Your task to perform on an android device: Open calendar and show me the first week of next month Image 0: 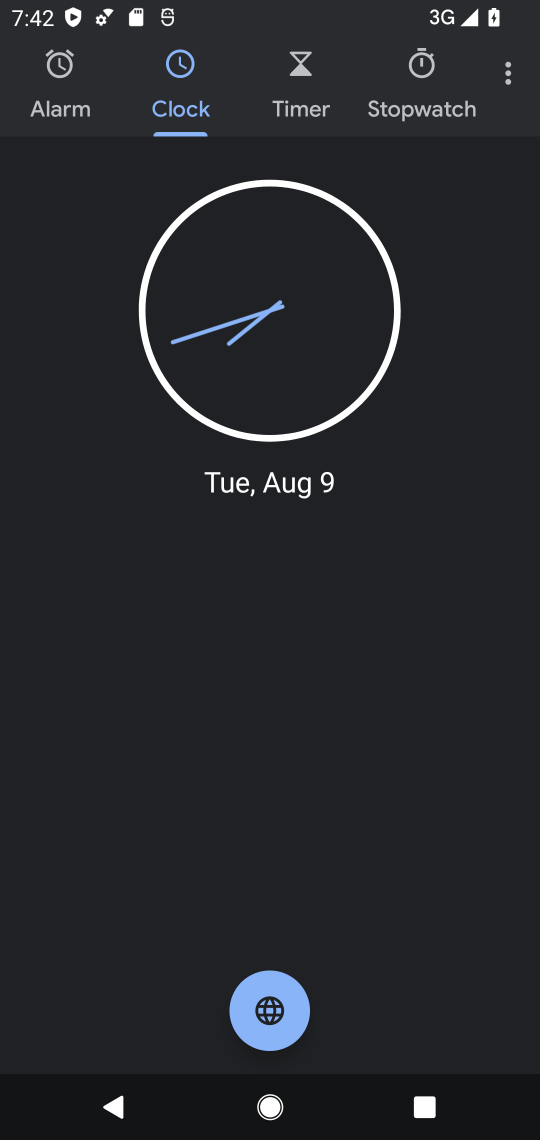
Step 0: press home button
Your task to perform on an android device: Open calendar and show me the first week of next month Image 1: 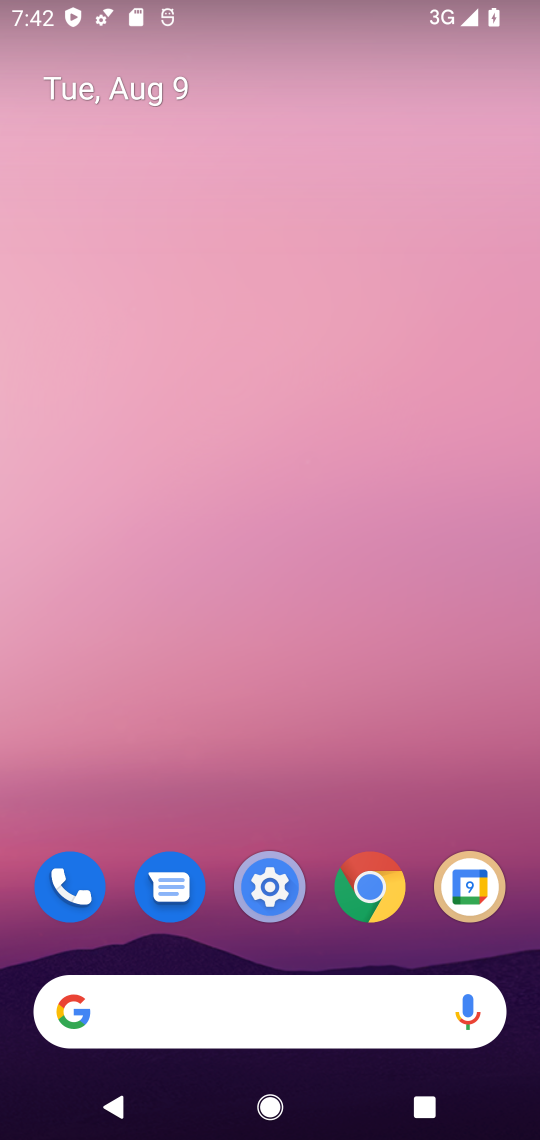
Step 1: click (476, 884)
Your task to perform on an android device: Open calendar and show me the first week of next month Image 2: 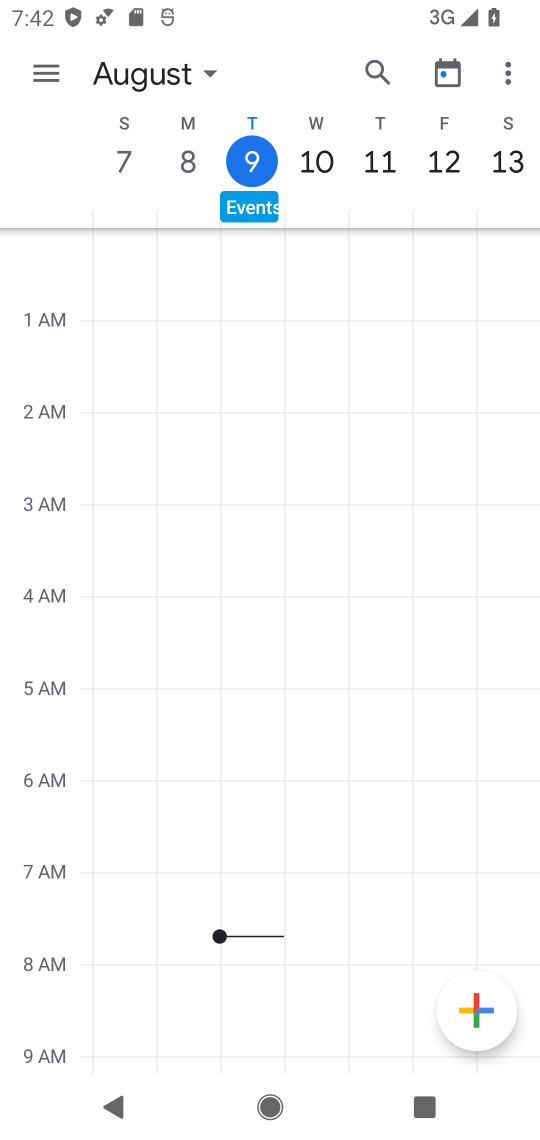
Step 2: task complete